Your task to perform on an android device: move a message to another label in the gmail app Image 0: 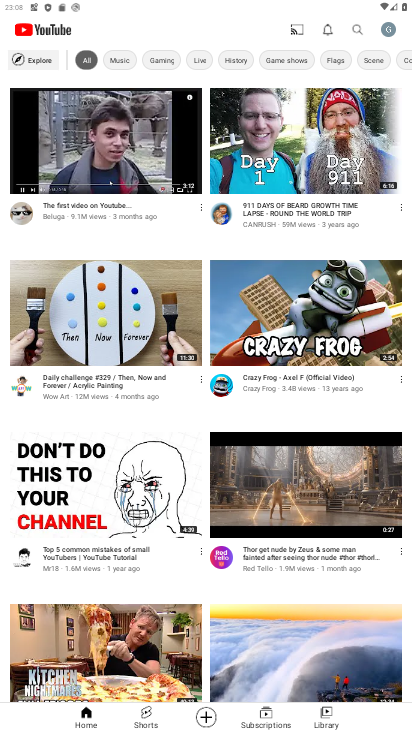
Step 0: press home button
Your task to perform on an android device: move a message to another label in the gmail app Image 1: 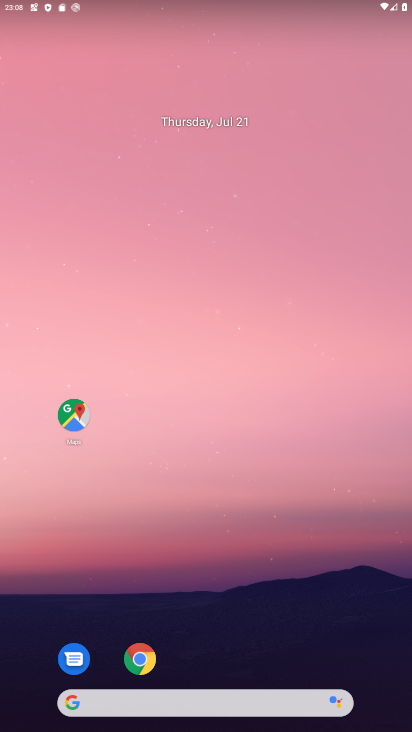
Step 1: drag from (369, 615) to (239, 11)
Your task to perform on an android device: move a message to another label in the gmail app Image 2: 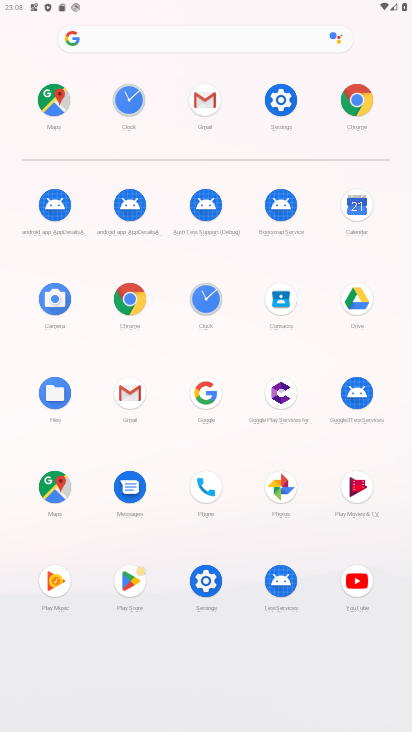
Step 2: click (210, 109)
Your task to perform on an android device: move a message to another label in the gmail app Image 3: 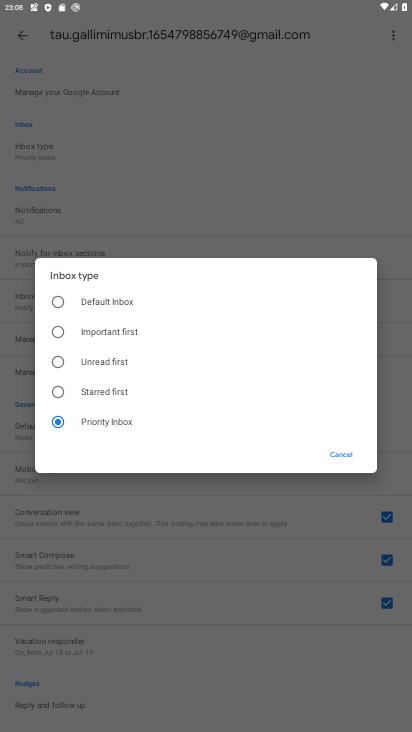
Step 3: click (348, 454)
Your task to perform on an android device: move a message to another label in the gmail app Image 4: 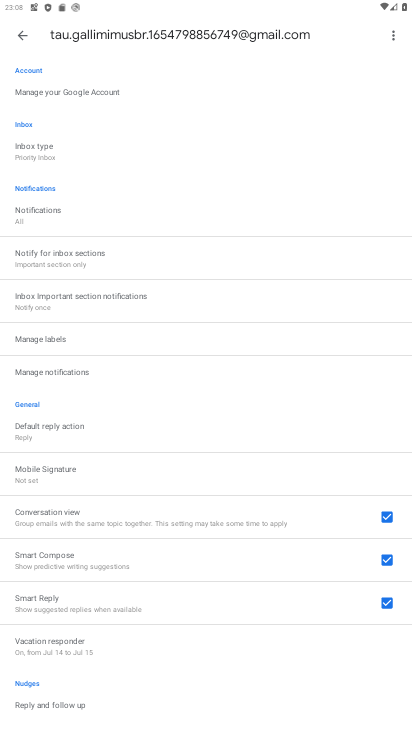
Step 4: click (27, 40)
Your task to perform on an android device: move a message to another label in the gmail app Image 5: 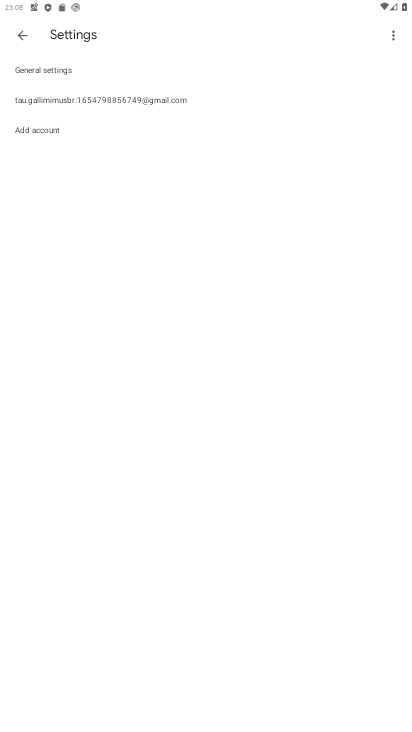
Step 5: click (26, 40)
Your task to perform on an android device: move a message to another label in the gmail app Image 6: 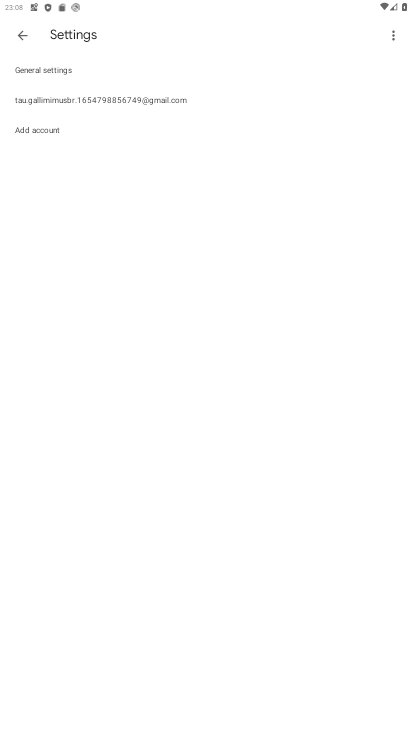
Step 6: click (26, 40)
Your task to perform on an android device: move a message to another label in the gmail app Image 7: 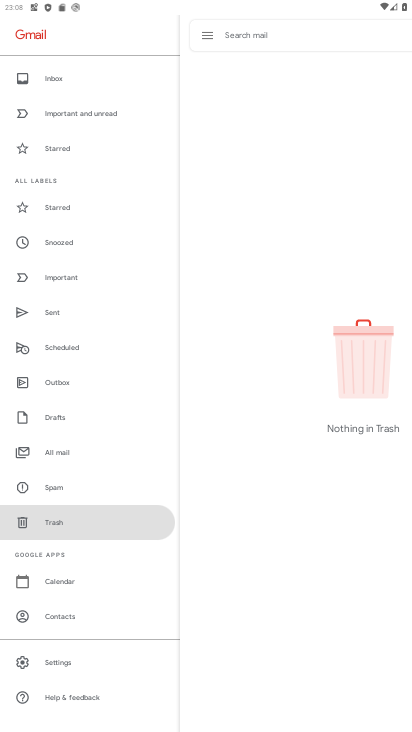
Step 7: click (54, 456)
Your task to perform on an android device: move a message to another label in the gmail app Image 8: 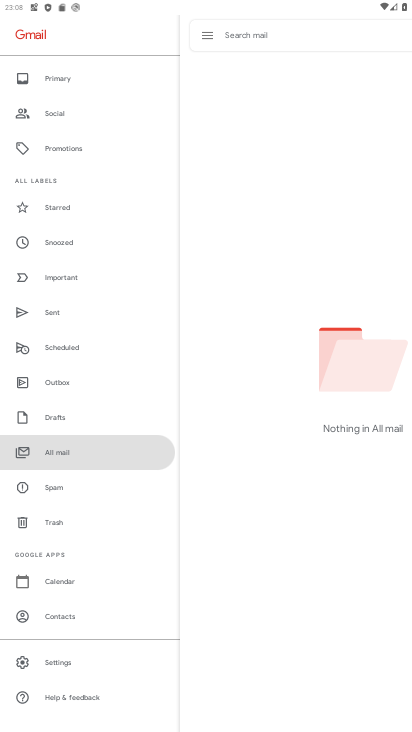
Step 8: task complete